Your task to perform on an android device: Show me productivity apps on the Play Store Image 0: 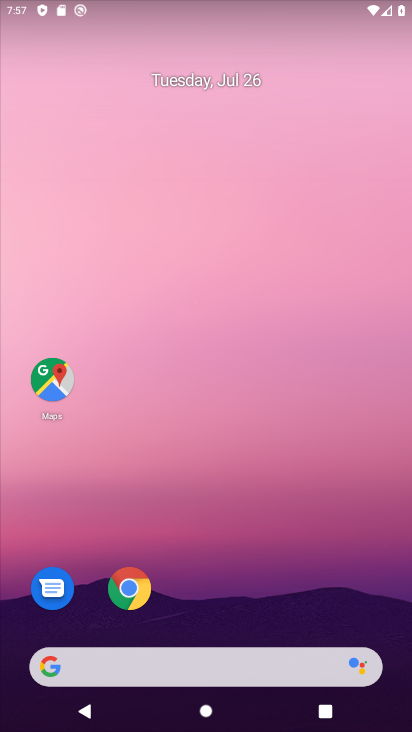
Step 0: drag from (127, 650) to (0, 241)
Your task to perform on an android device: Show me productivity apps on the Play Store Image 1: 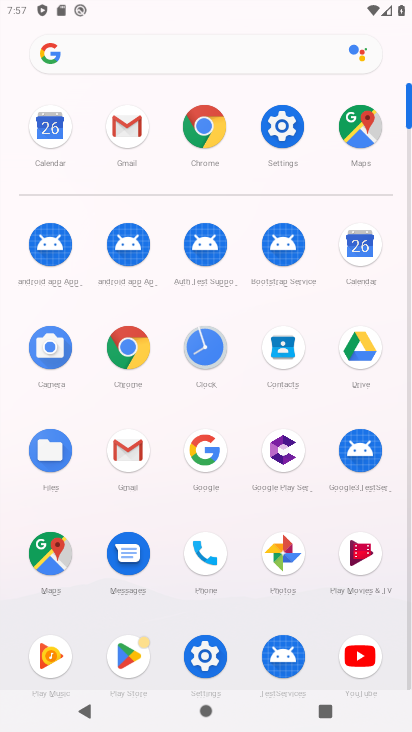
Step 1: click (130, 644)
Your task to perform on an android device: Show me productivity apps on the Play Store Image 2: 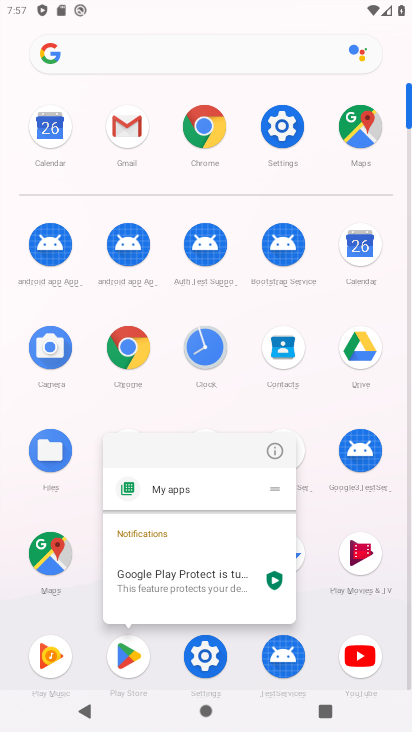
Step 2: click (131, 643)
Your task to perform on an android device: Show me productivity apps on the Play Store Image 3: 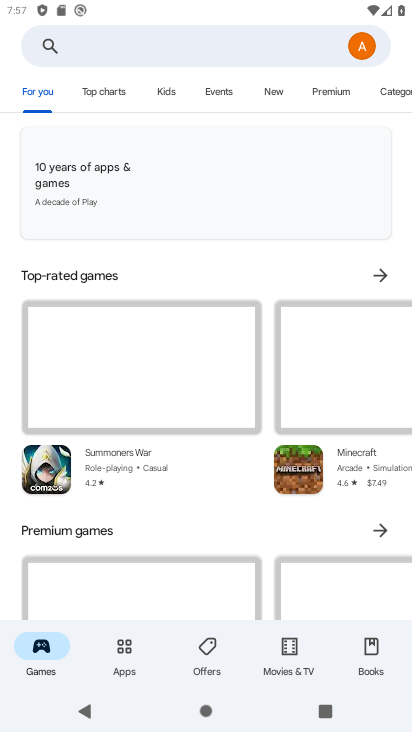
Step 3: click (119, 663)
Your task to perform on an android device: Show me productivity apps on the Play Store Image 4: 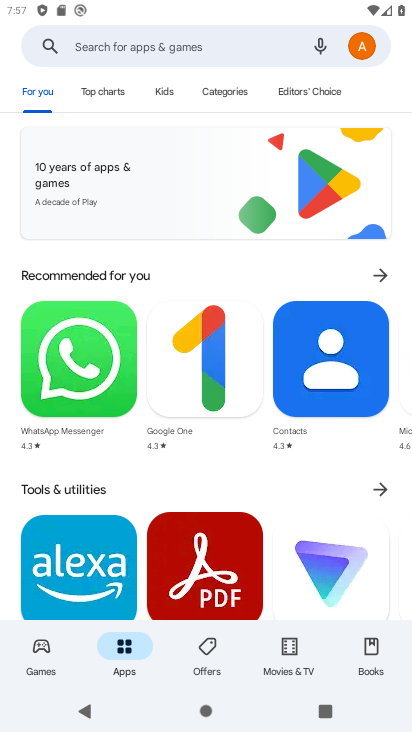
Step 4: task complete